Your task to perform on an android device: Open battery settings Image 0: 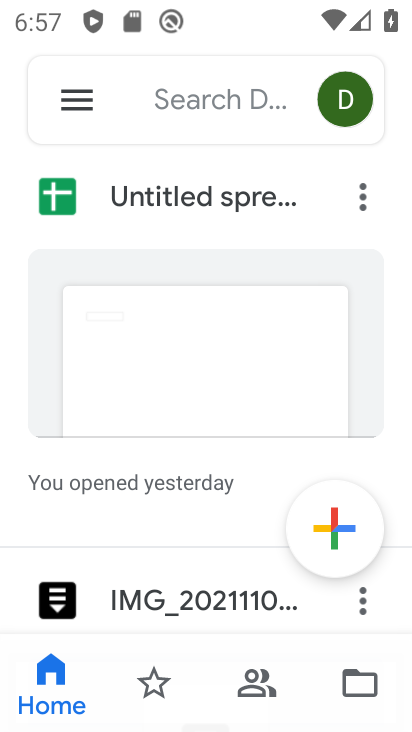
Step 0: press home button
Your task to perform on an android device: Open battery settings Image 1: 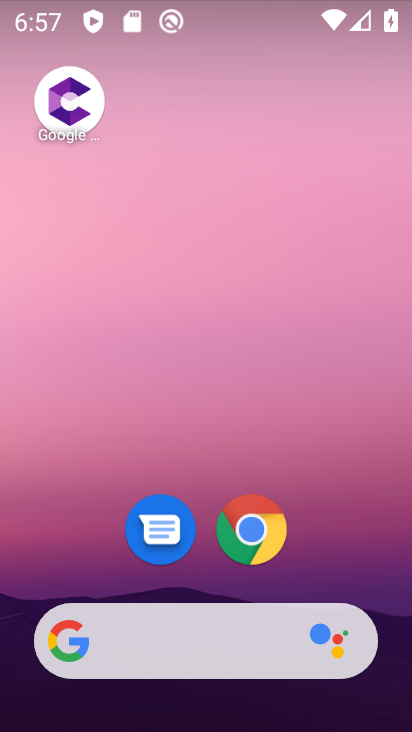
Step 1: drag from (343, 530) to (272, 13)
Your task to perform on an android device: Open battery settings Image 2: 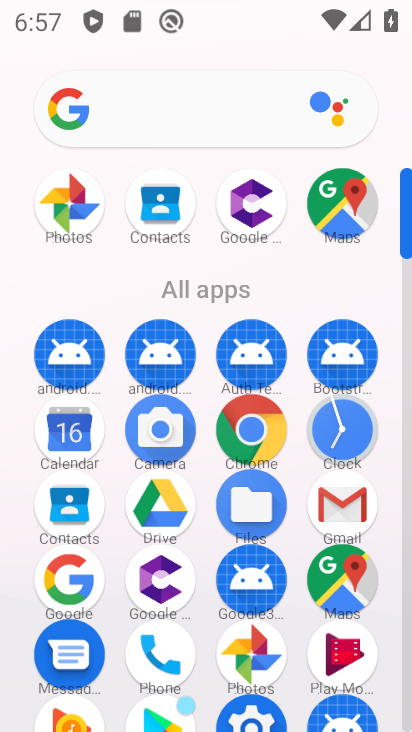
Step 2: click (242, 711)
Your task to perform on an android device: Open battery settings Image 3: 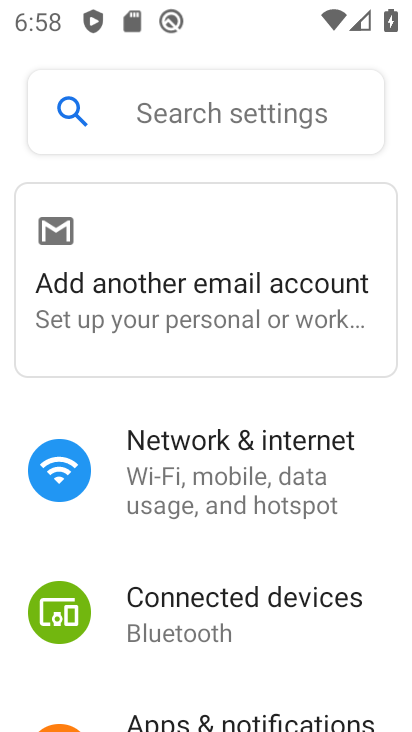
Step 3: drag from (233, 662) to (188, 430)
Your task to perform on an android device: Open battery settings Image 4: 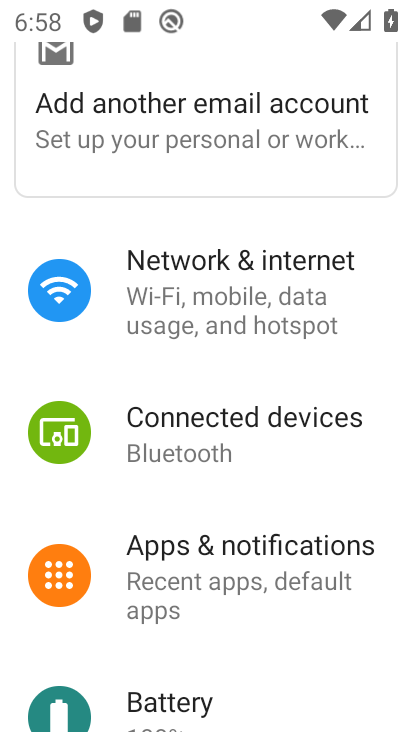
Step 4: click (156, 694)
Your task to perform on an android device: Open battery settings Image 5: 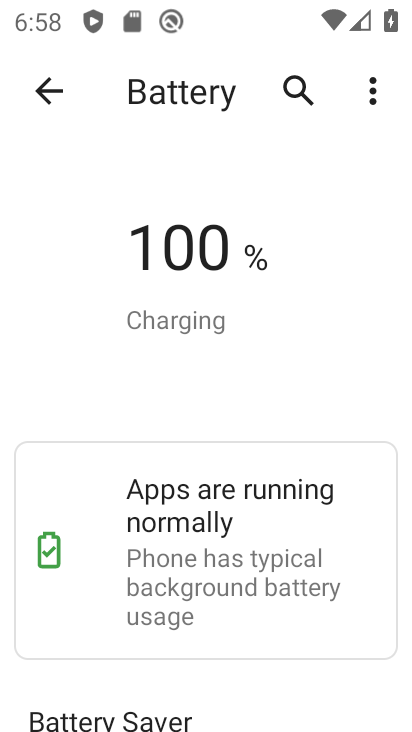
Step 5: task complete